Your task to perform on an android device: check storage Image 0: 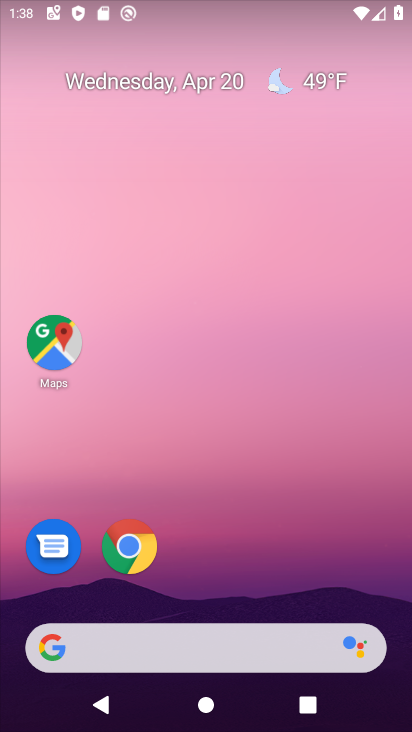
Step 0: drag from (200, 611) to (285, 55)
Your task to perform on an android device: check storage Image 1: 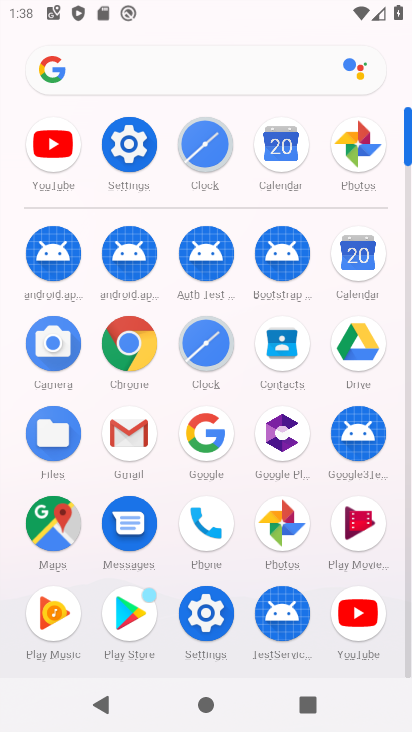
Step 1: click (127, 145)
Your task to perform on an android device: check storage Image 2: 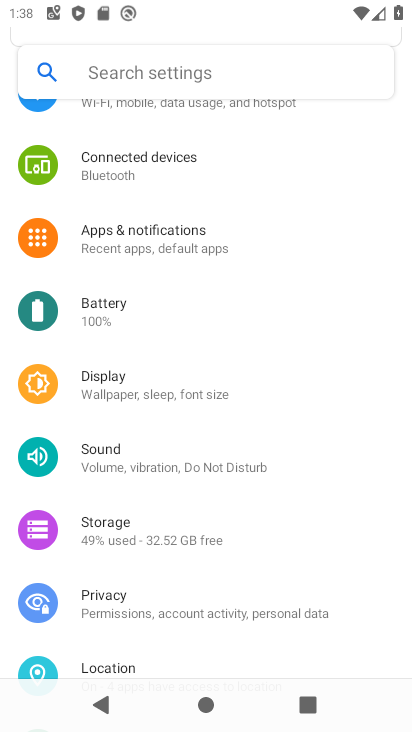
Step 2: click (159, 526)
Your task to perform on an android device: check storage Image 3: 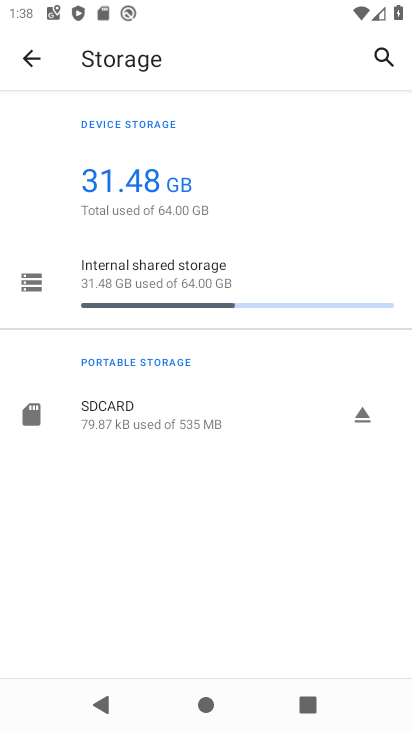
Step 3: task complete